Your task to perform on an android device: choose inbox layout in the gmail app Image 0: 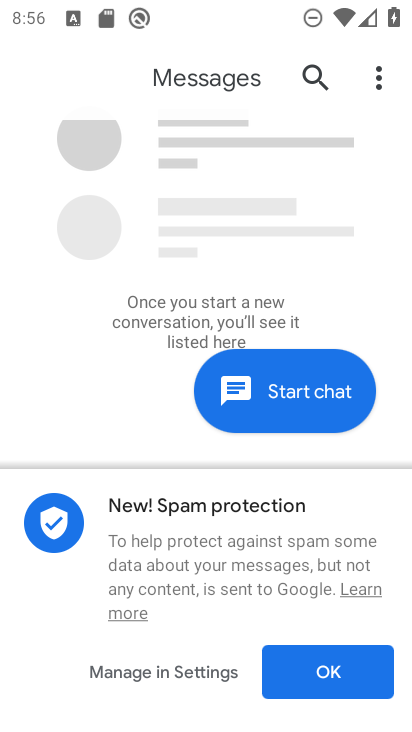
Step 0: press home button
Your task to perform on an android device: choose inbox layout in the gmail app Image 1: 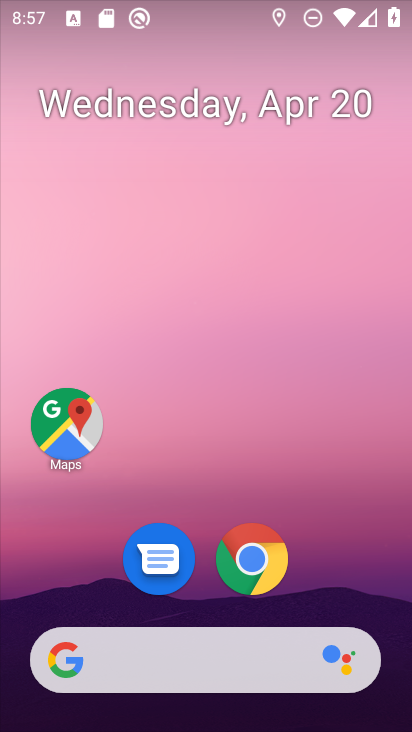
Step 1: drag from (387, 609) to (277, 180)
Your task to perform on an android device: choose inbox layout in the gmail app Image 2: 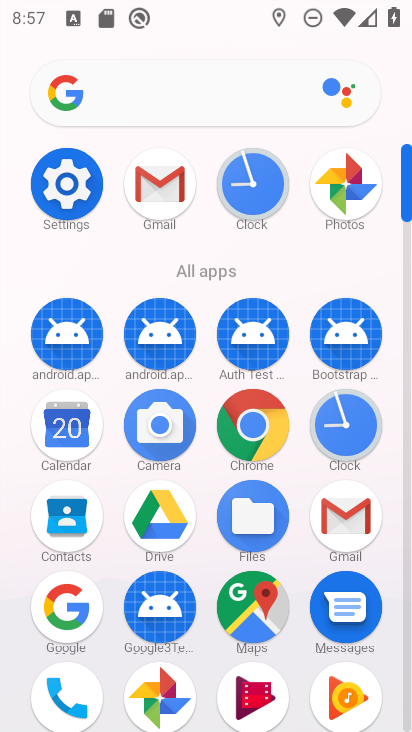
Step 2: click (341, 509)
Your task to perform on an android device: choose inbox layout in the gmail app Image 3: 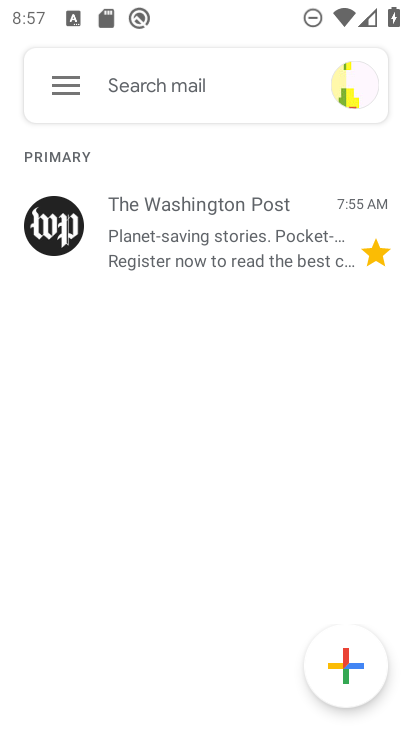
Step 3: click (68, 77)
Your task to perform on an android device: choose inbox layout in the gmail app Image 4: 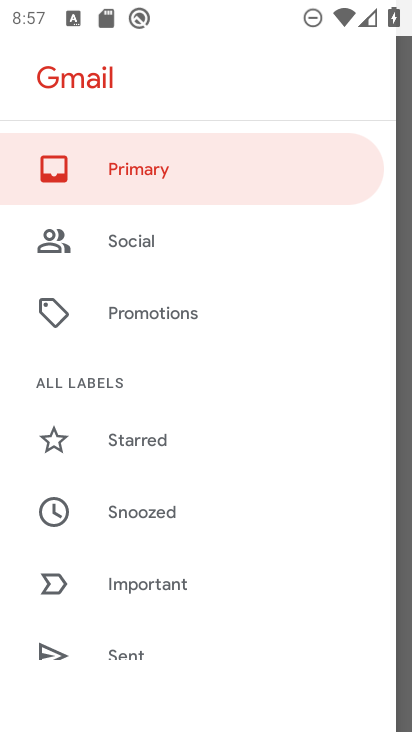
Step 4: drag from (264, 612) to (249, 280)
Your task to perform on an android device: choose inbox layout in the gmail app Image 5: 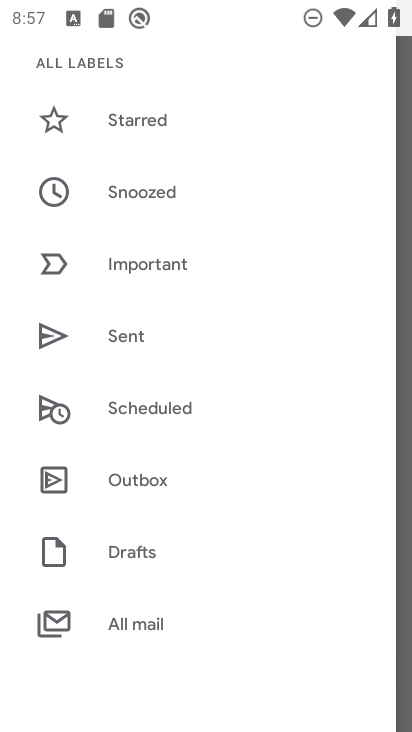
Step 5: drag from (241, 606) to (271, 256)
Your task to perform on an android device: choose inbox layout in the gmail app Image 6: 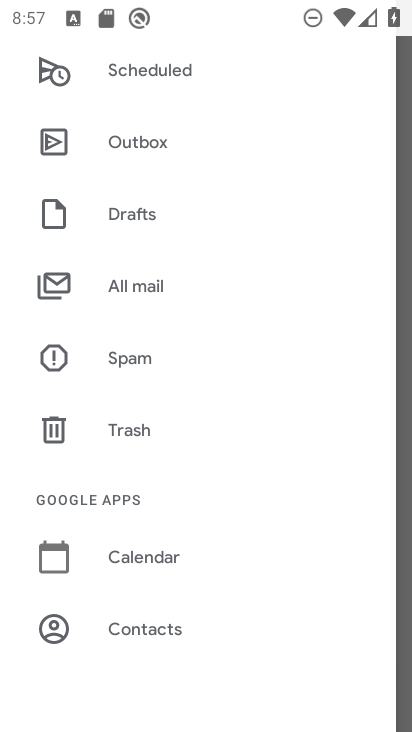
Step 6: drag from (241, 567) to (242, 182)
Your task to perform on an android device: choose inbox layout in the gmail app Image 7: 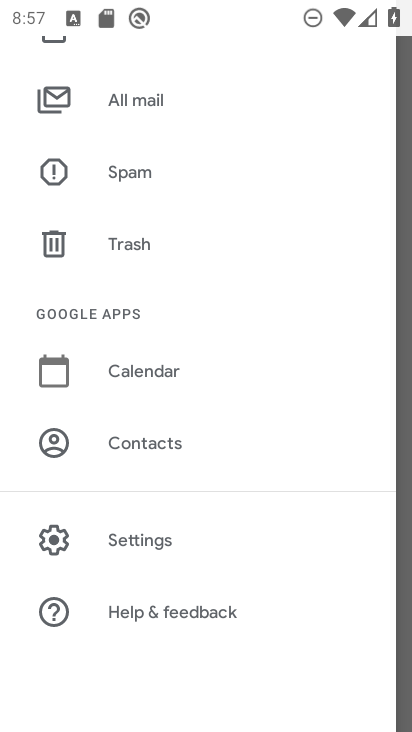
Step 7: click (132, 541)
Your task to perform on an android device: choose inbox layout in the gmail app Image 8: 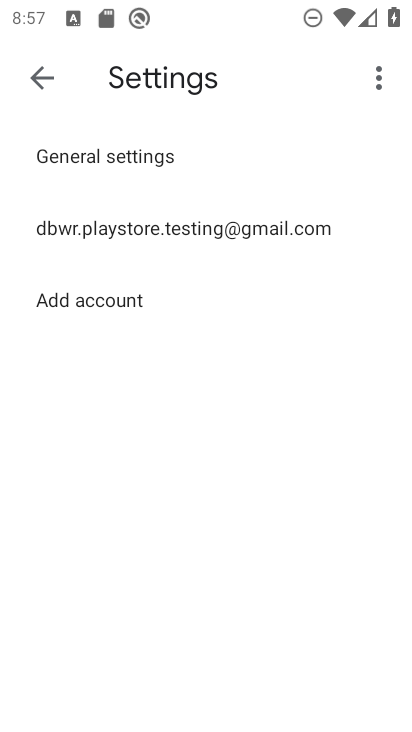
Step 8: click (143, 235)
Your task to perform on an android device: choose inbox layout in the gmail app Image 9: 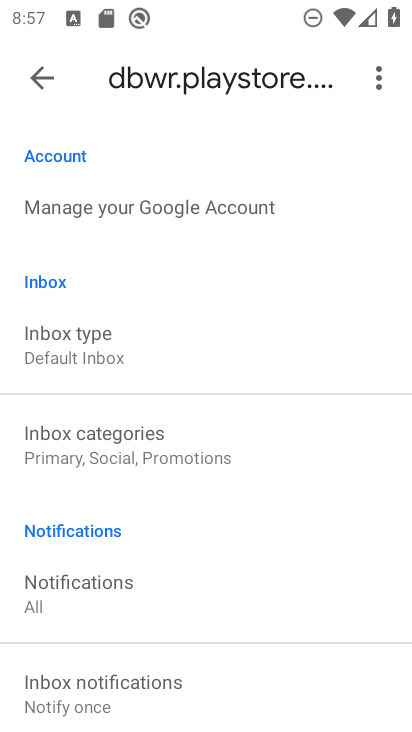
Step 9: click (67, 361)
Your task to perform on an android device: choose inbox layout in the gmail app Image 10: 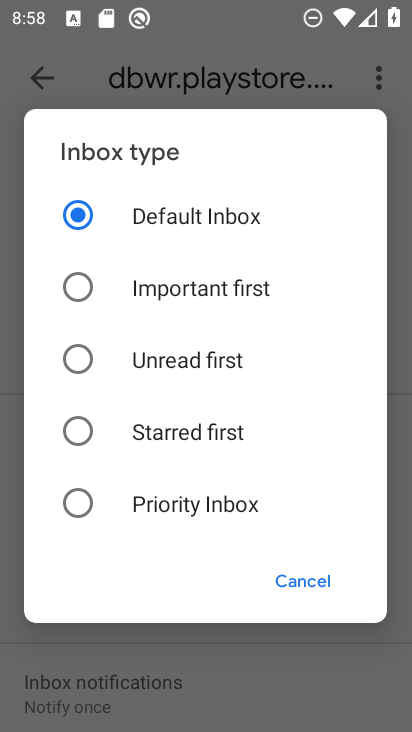
Step 10: click (82, 295)
Your task to perform on an android device: choose inbox layout in the gmail app Image 11: 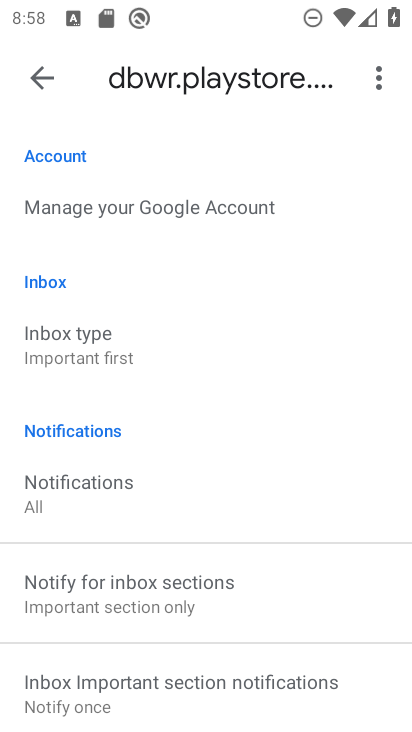
Step 11: task complete